Your task to perform on an android device: turn on data saver in the chrome app Image 0: 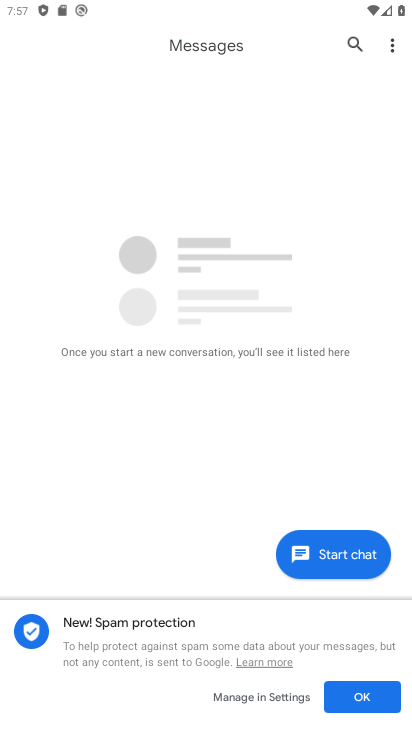
Step 0: press home button
Your task to perform on an android device: turn on data saver in the chrome app Image 1: 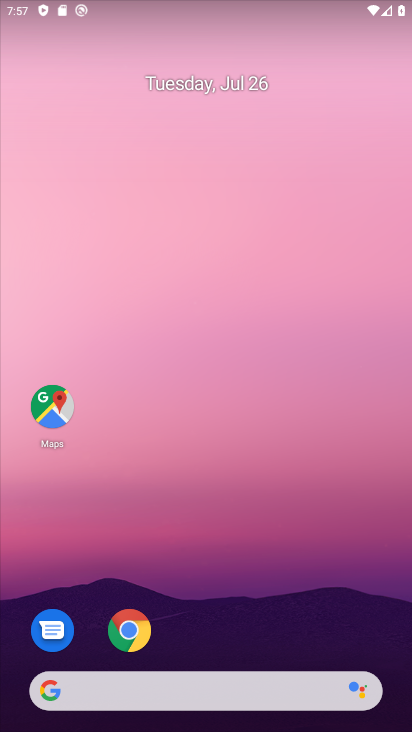
Step 1: click (157, 632)
Your task to perform on an android device: turn on data saver in the chrome app Image 2: 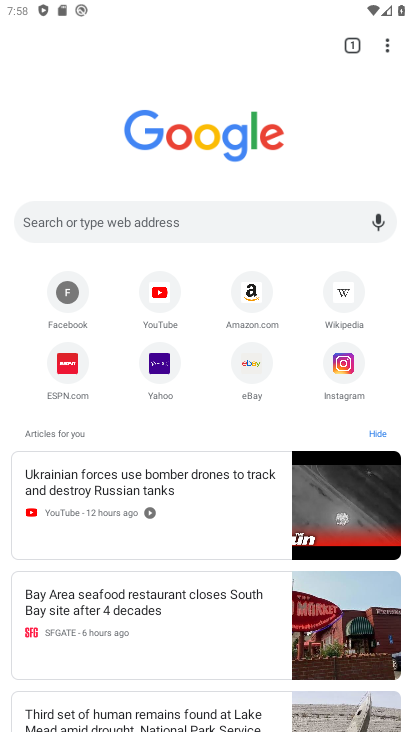
Step 2: click (387, 45)
Your task to perform on an android device: turn on data saver in the chrome app Image 3: 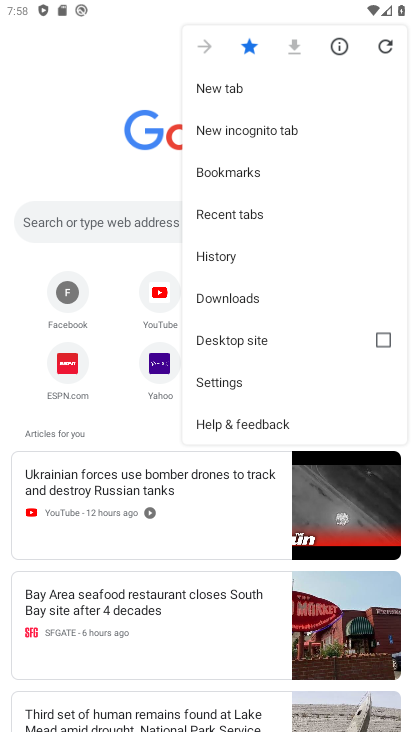
Step 3: click (276, 381)
Your task to perform on an android device: turn on data saver in the chrome app Image 4: 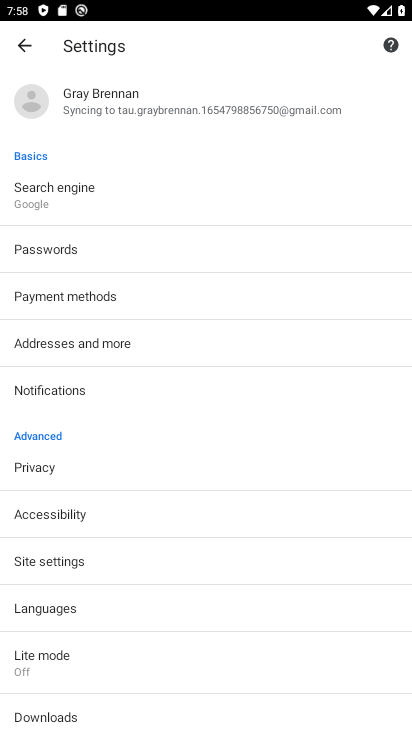
Step 4: click (107, 636)
Your task to perform on an android device: turn on data saver in the chrome app Image 5: 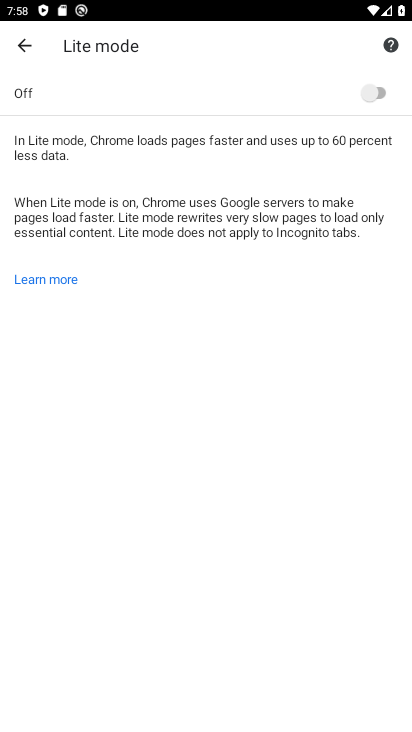
Step 5: click (382, 99)
Your task to perform on an android device: turn on data saver in the chrome app Image 6: 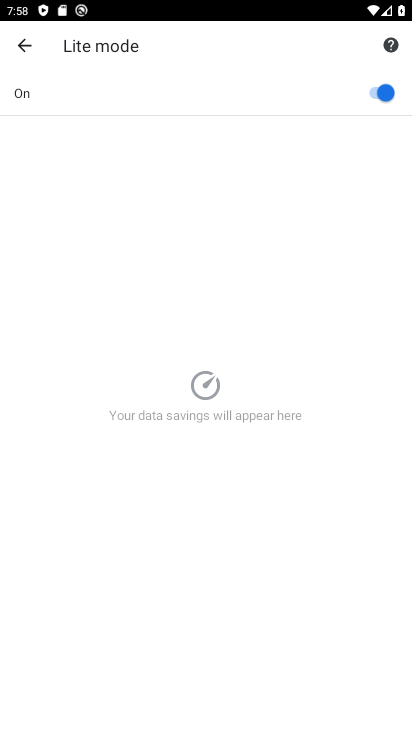
Step 6: task complete